Your task to perform on an android device: Go to Maps Image 0: 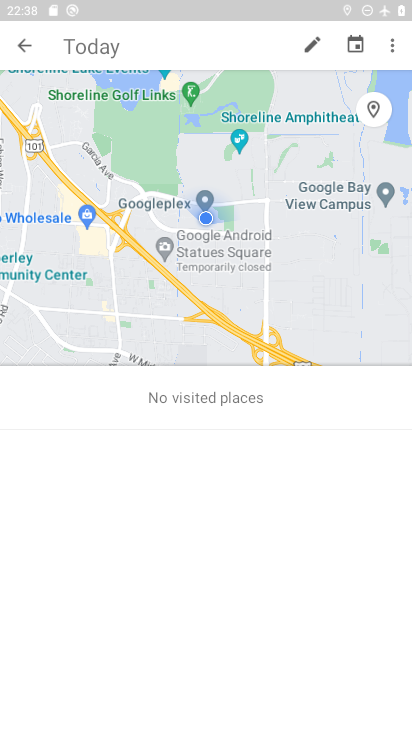
Step 0: click (24, 41)
Your task to perform on an android device: Go to Maps Image 1: 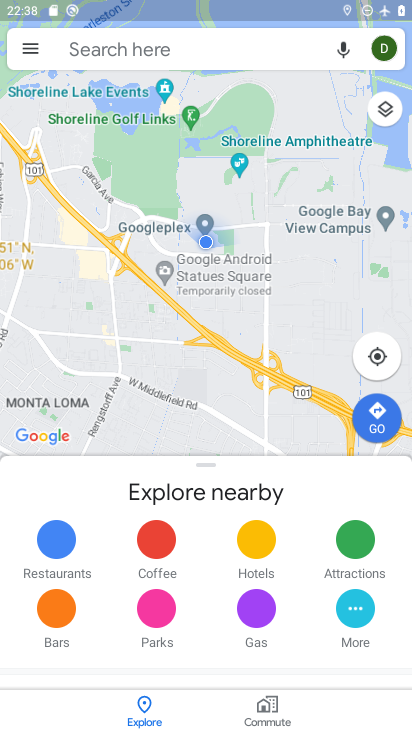
Step 1: task complete